Your task to perform on an android device: Open battery settings Image 0: 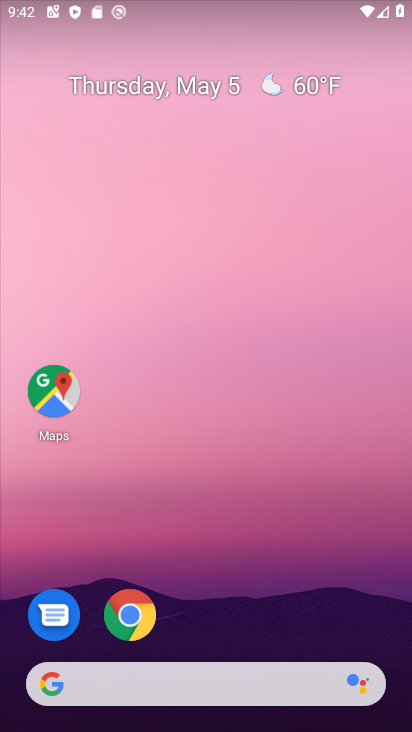
Step 0: drag from (189, 599) to (230, 88)
Your task to perform on an android device: Open battery settings Image 1: 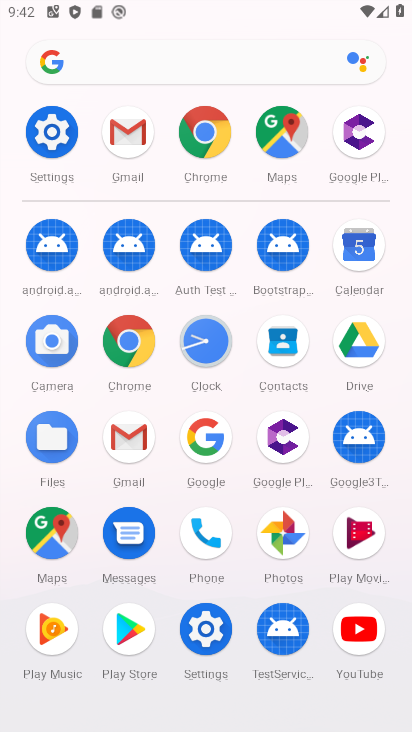
Step 1: click (43, 136)
Your task to perform on an android device: Open battery settings Image 2: 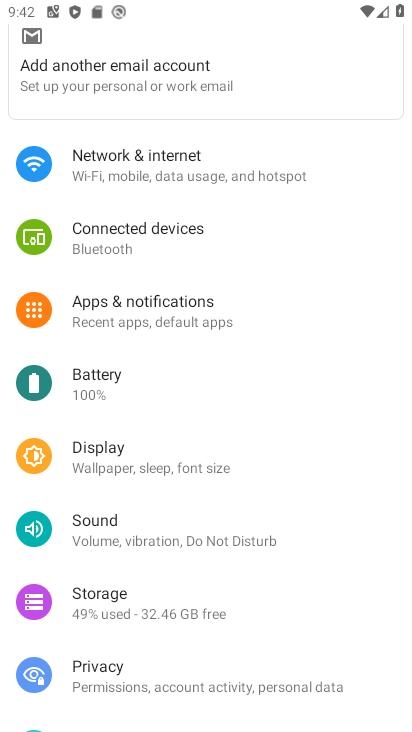
Step 2: click (129, 390)
Your task to perform on an android device: Open battery settings Image 3: 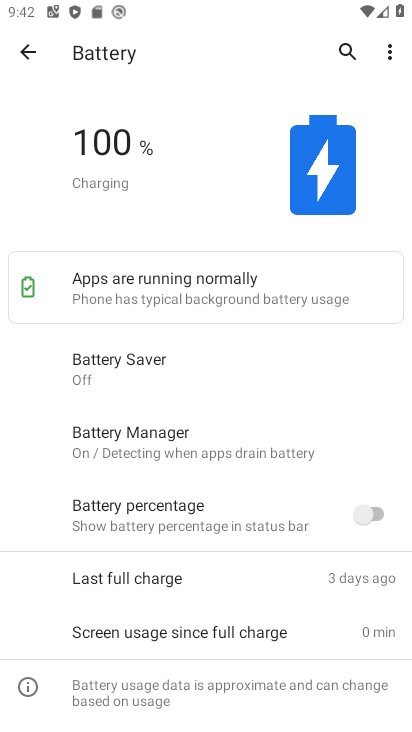
Step 3: task complete